Your task to perform on an android device: toggle notifications settings in the gmail app Image 0: 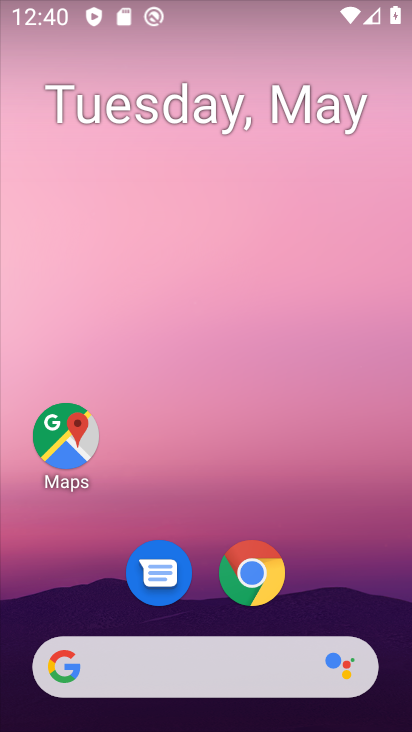
Step 0: drag from (360, 492) to (365, 196)
Your task to perform on an android device: toggle notifications settings in the gmail app Image 1: 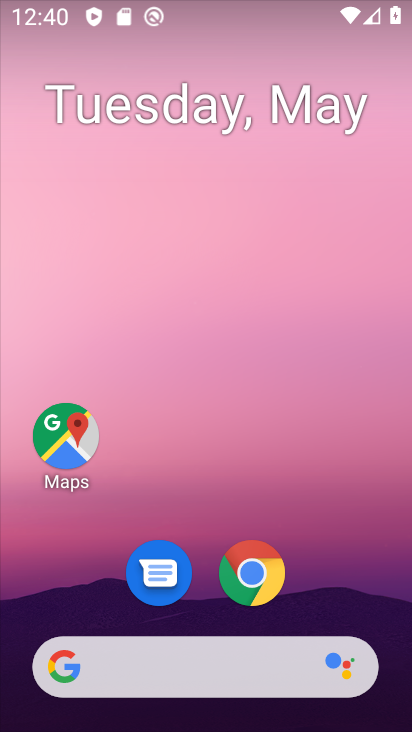
Step 1: drag from (361, 520) to (320, 41)
Your task to perform on an android device: toggle notifications settings in the gmail app Image 2: 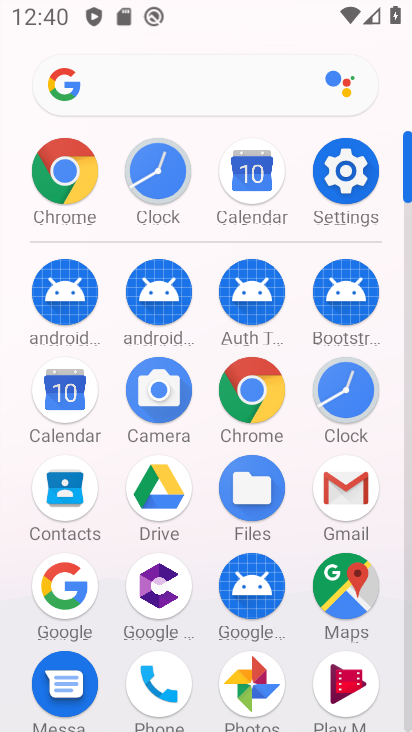
Step 2: click (345, 480)
Your task to perform on an android device: toggle notifications settings in the gmail app Image 3: 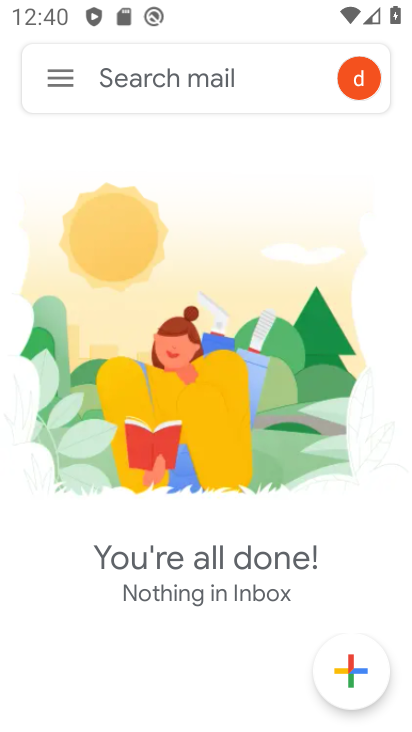
Step 3: click (53, 81)
Your task to perform on an android device: toggle notifications settings in the gmail app Image 4: 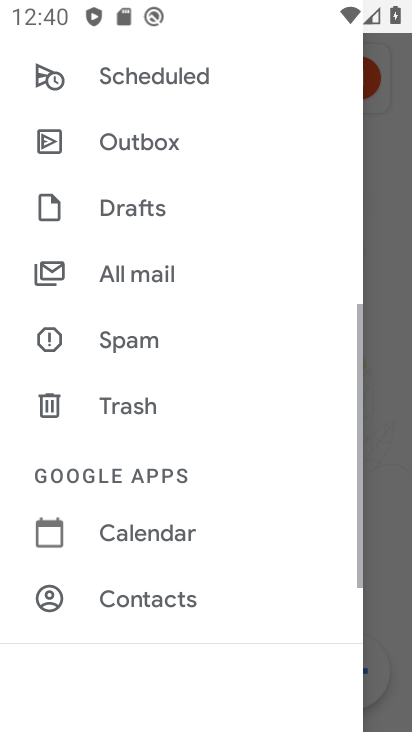
Step 4: drag from (208, 538) to (276, 241)
Your task to perform on an android device: toggle notifications settings in the gmail app Image 5: 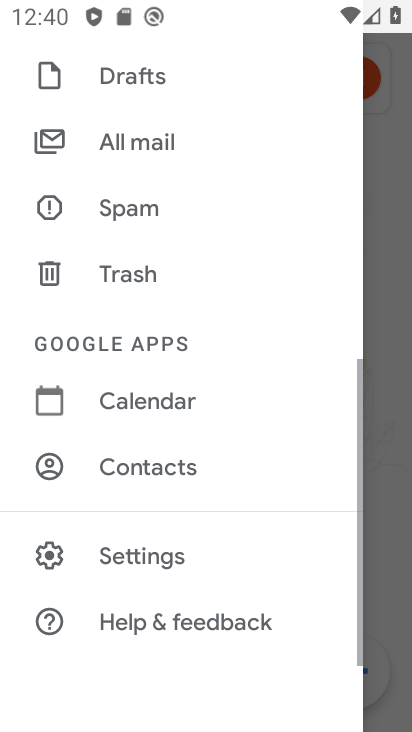
Step 5: click (197, 560)
Your task to perform on an android device: toggle notifications settings in the gmail app Image 6: 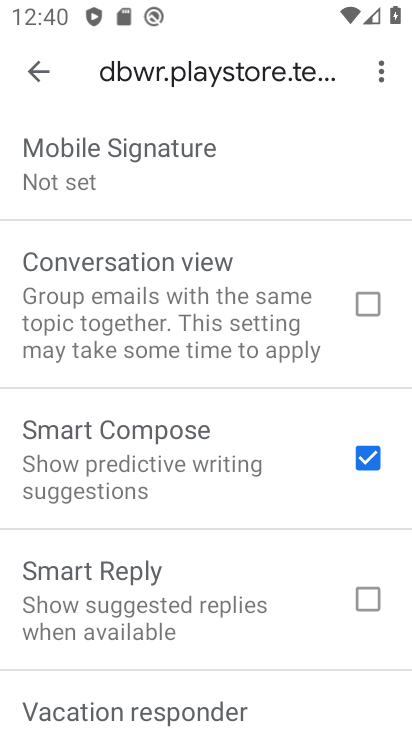
Step 6: drag from (188, 614) to (203, 226)
Your task to perform on an android device: toggle notifications settings in the gmail app Image 7: 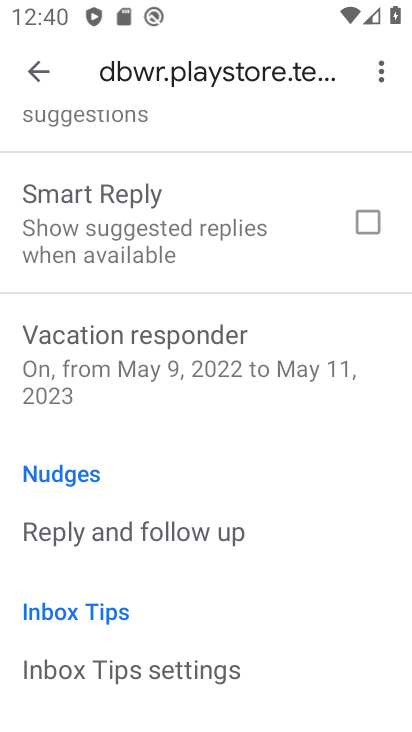
Step 7: drag from (203, 622) to (250, 188)
Your task to perform on an android device: toggle notifications settings in the gmail app Image 8: 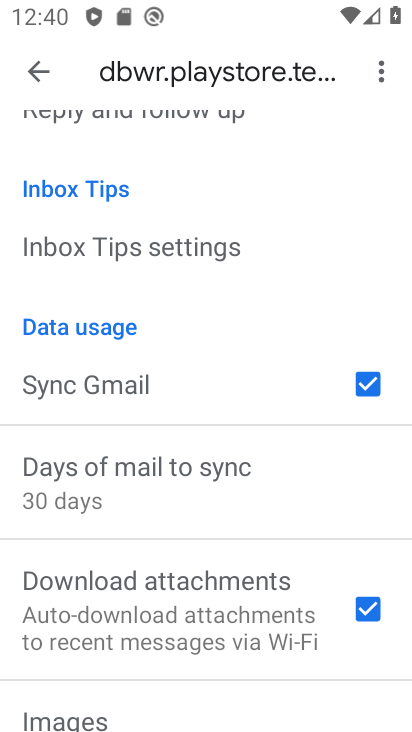
Step 8: drag from (250, 192) to (259, 635)
Your task to perform on an android device: toggle notifications settings in the gmail app Image 9: 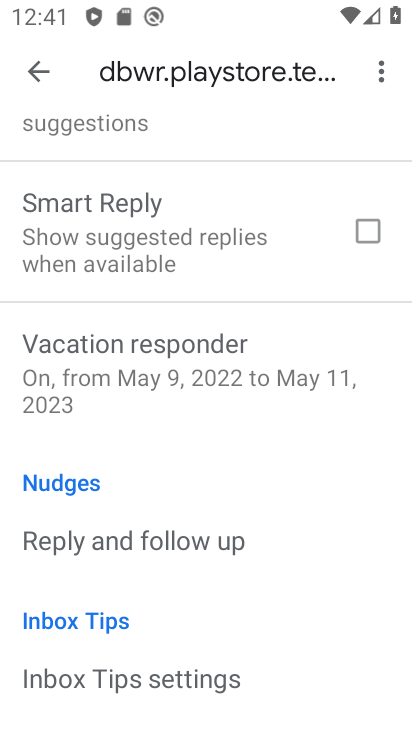
Step 9: drag from (186, 220) to (181, 449)
Your task to perform on an android device: toggle notifications settings in the gmail app Image 10: 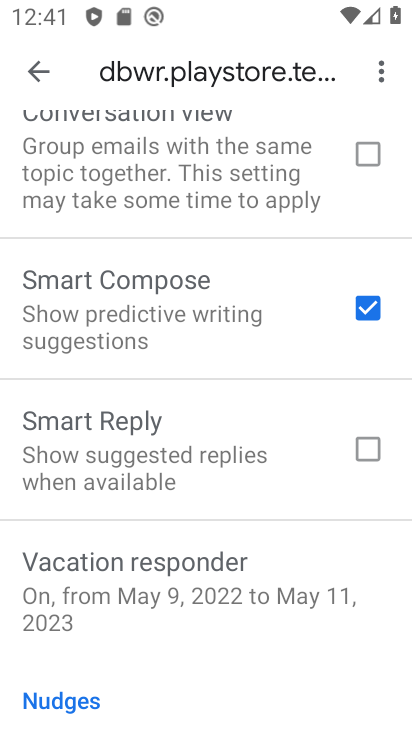
Step 10: drag from (196, 310) to (235, 638)
Your task to perform on an android device: toggle notifications settings in the gmail app Image 11: 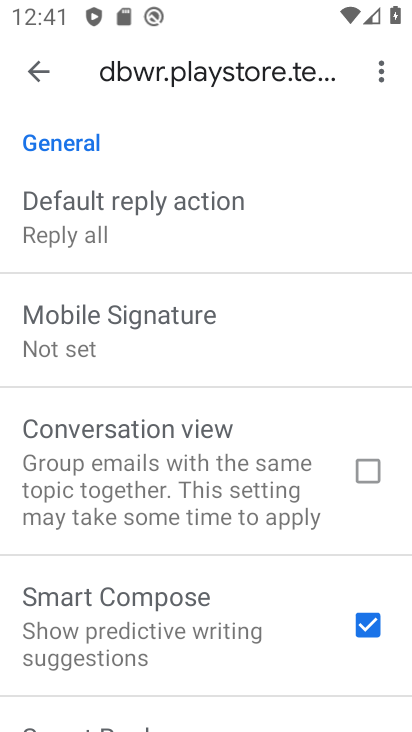
Step 11: drag from (198, 230) to (226, 610)
Your task to perform on an android device: toggle notifications settings in the gmail app Image 12: 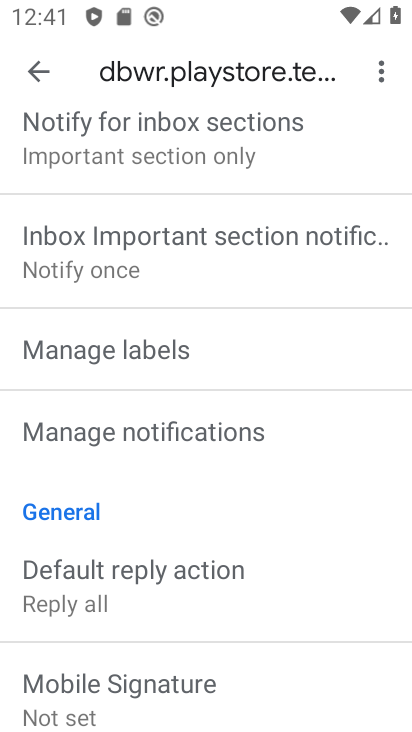
Step 12: drag from (209, 201) to (237, 599)
Your task to perform on an android device: toggle notifications settings in the gmail app Image 13: 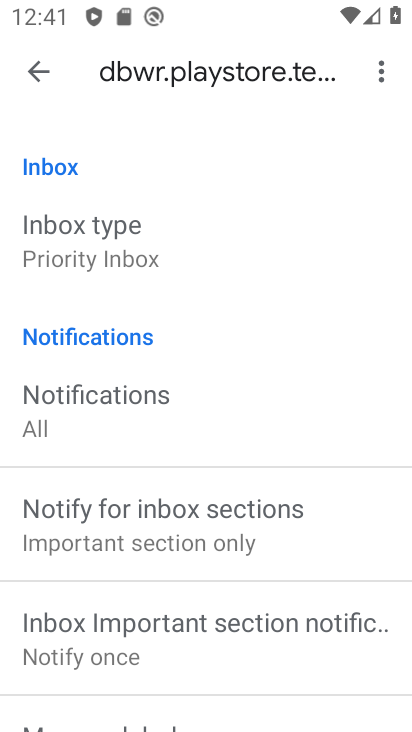
Step 13: click (113, 431)
Your task to perform on an android device: toggle notifications settings in the gmail app Image 14: 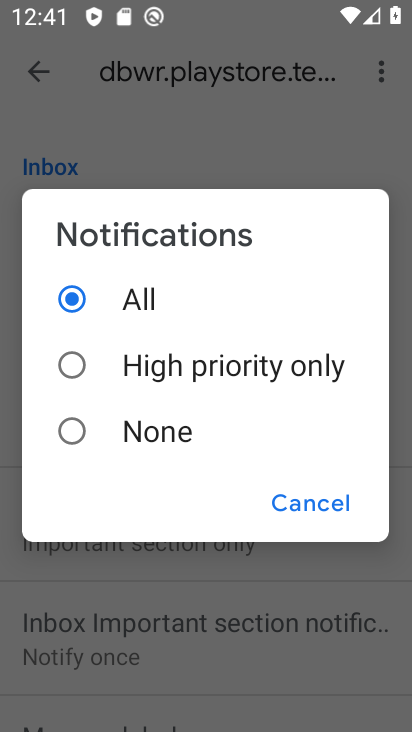
Step 14: click (75, 366)
Your task to perform on an android device: toggle notifications settings in the gmail app Image 15: 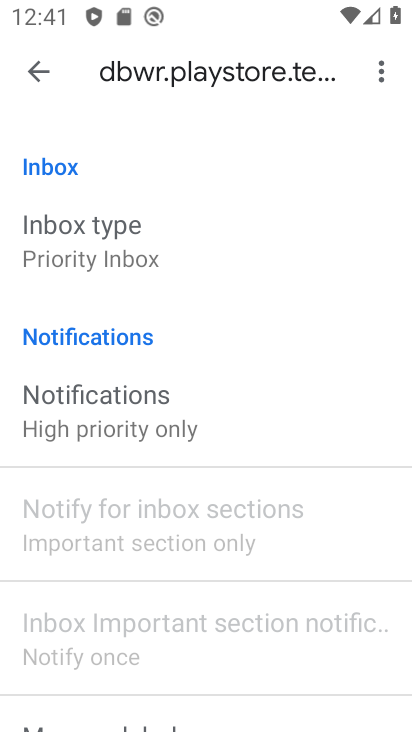
Step 15: task complete